Your task to perform on an android device: Go to privacy settings Image 0: 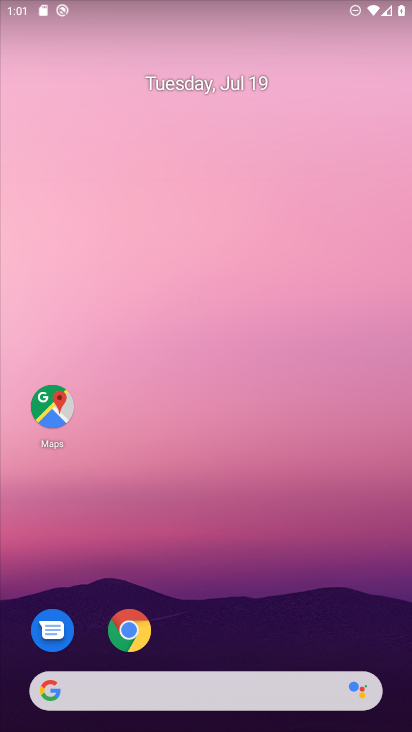
Step 0: press home button
Your task to perform on an android device: Go to privacy settings Image 1: 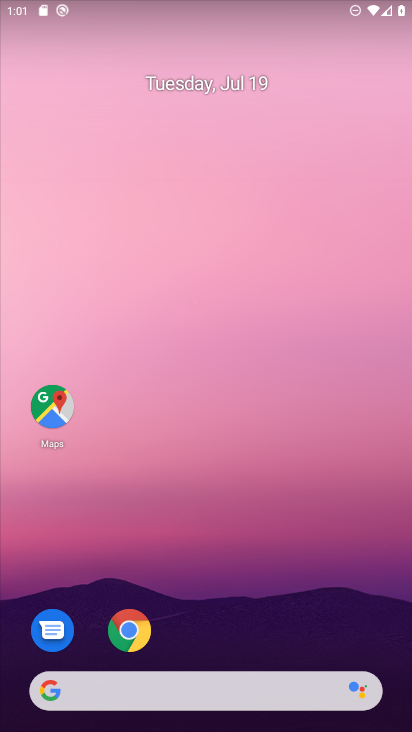
Step 1: drag from (212, 646) to (284, 161)
Your task to perform on an android device: Go to privacy settings Image 2: 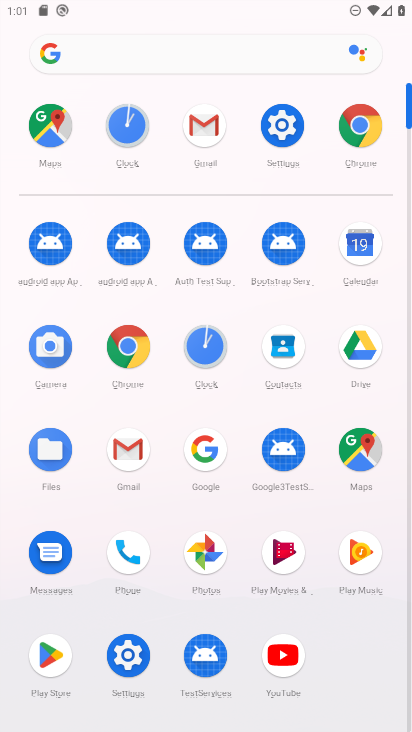
Step 2: click (282, 131)
Your task to perform on an android device: Go to privacy settings Image 3: 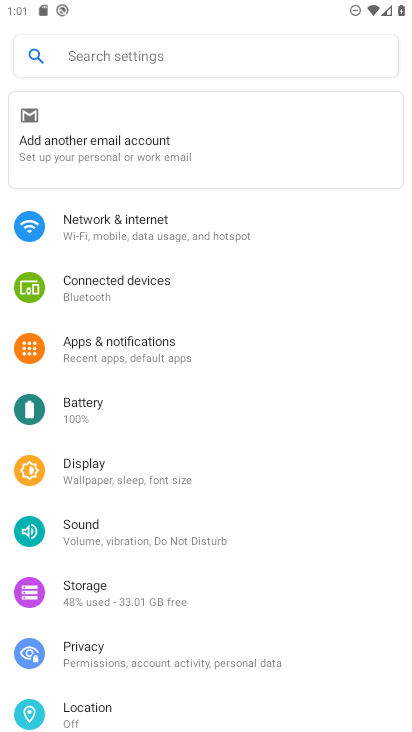
Step 3: click (124, 653)
Your task to perform on an android device: Go to privacy settings Image 4: 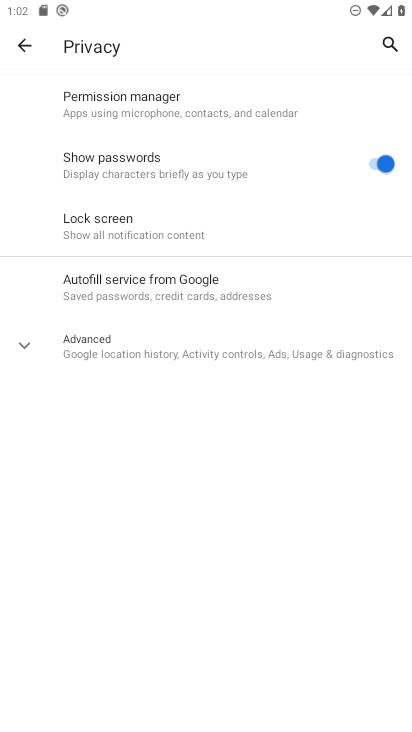
Step 4: task complete